Your task to perform on an android device: install app "Facebook" Image 0: 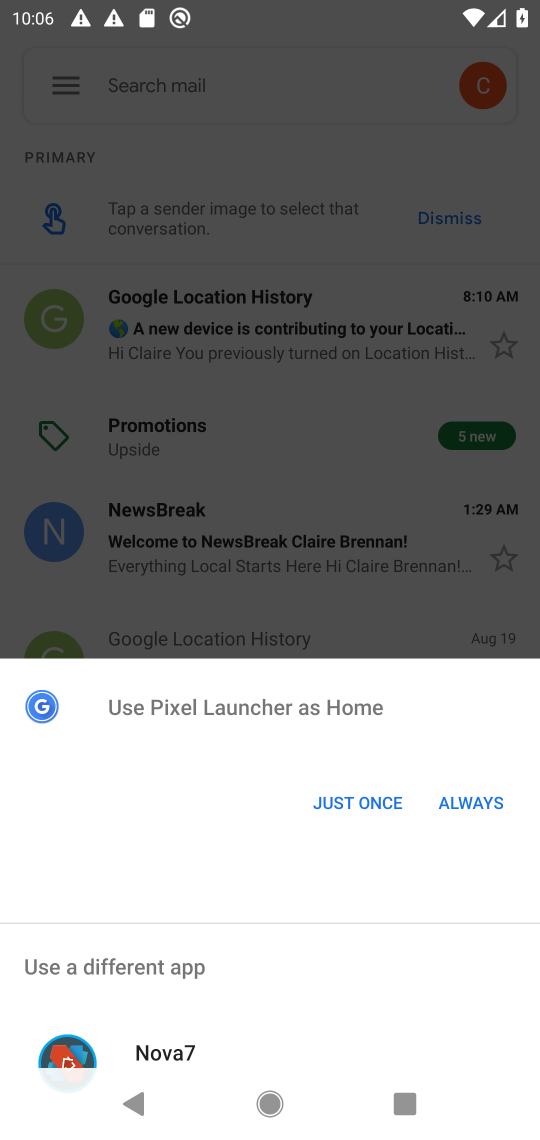
Step 0: click (329, 807)
Your task to perform on an android device: install app "Facebook" Image 1: 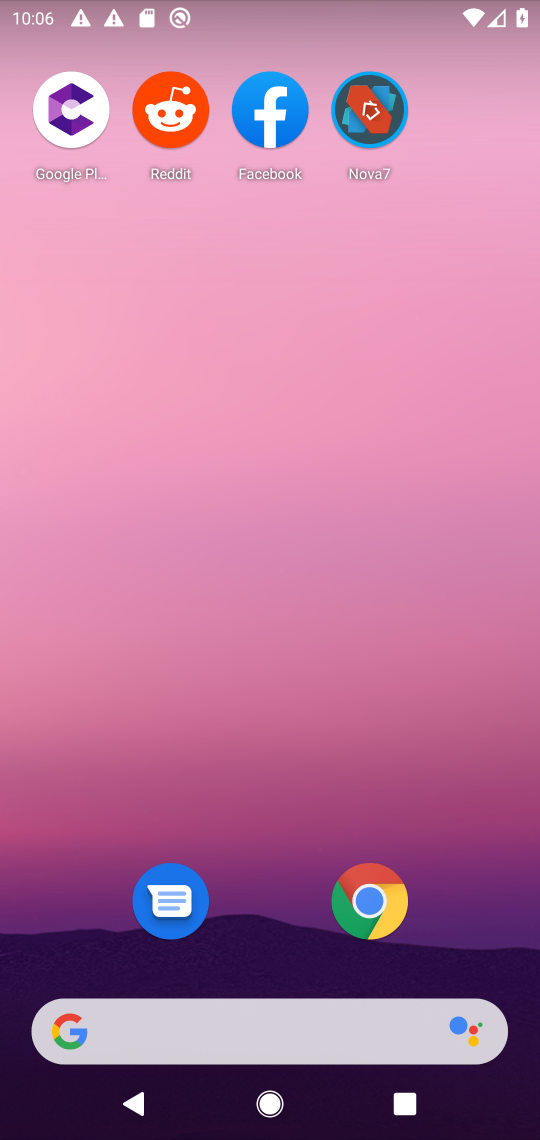
Step 1: drag from (304, 1017) to (427, 63)
Your task to perform on an android device: install app "Facebook" Image 2: 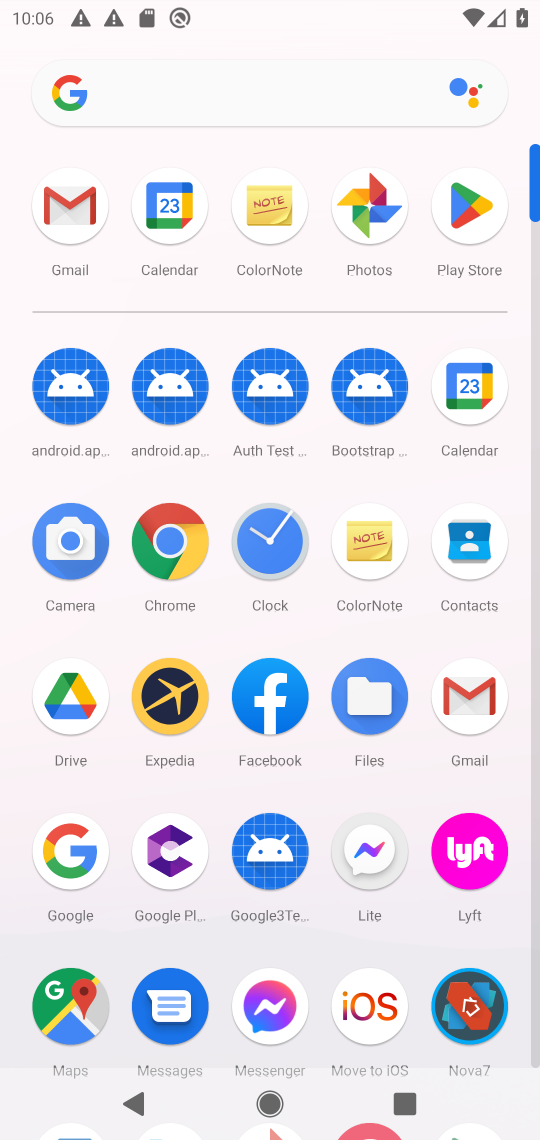
Step 2: click (476, 206)
Your task to perform on an android device: install app "Facebook" Image 3: 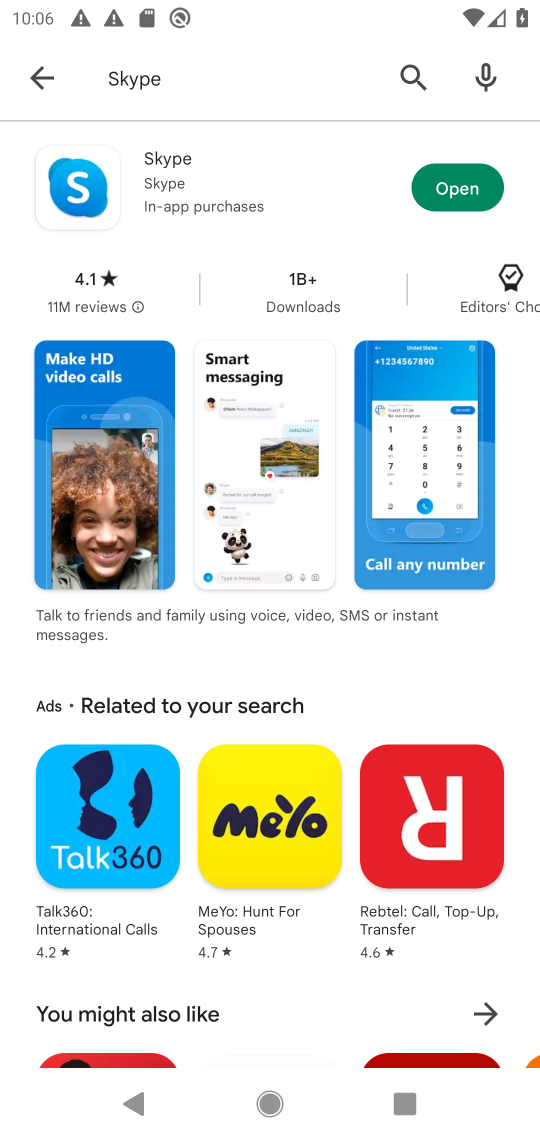
Step 3: press back button
Your task to perform on an android device: install app "Facebook" Image 4: 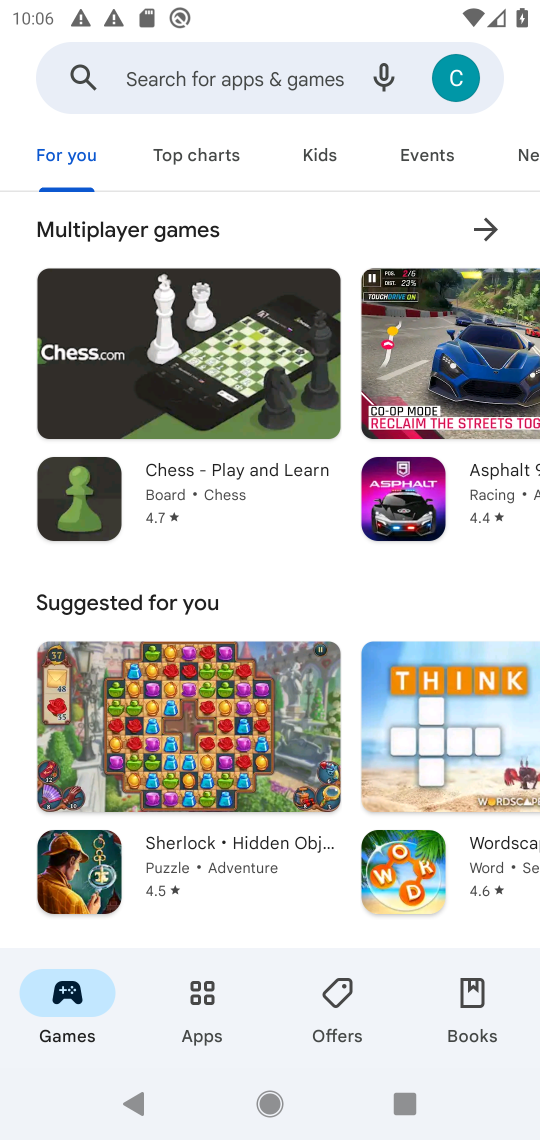
Step 4: click (247, 78)
Your task to perform on an android device: install app "Facebook" Image 5: 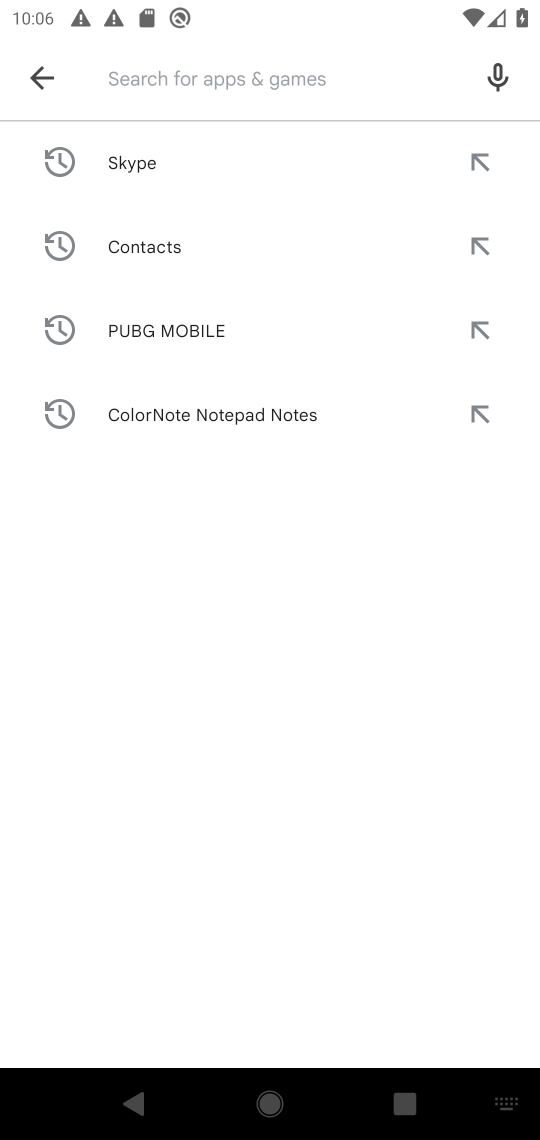
Step 5: type "Facebook"
Your task to perform on an android device: install app "Facebook" Image 6: 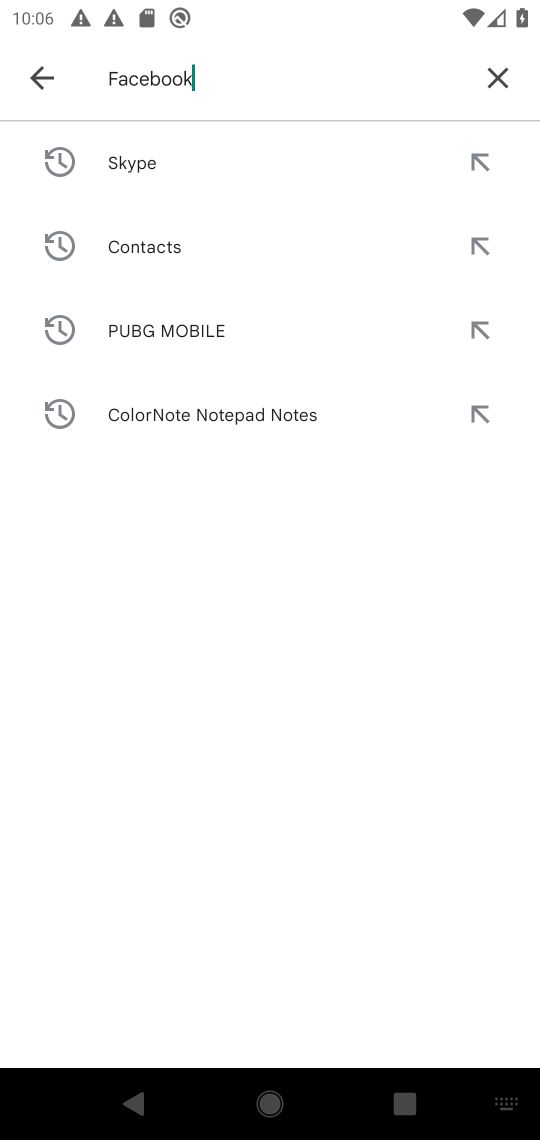
Step 6: press enter
Your task to perform on an android device: install app "Facebook" Image 7: 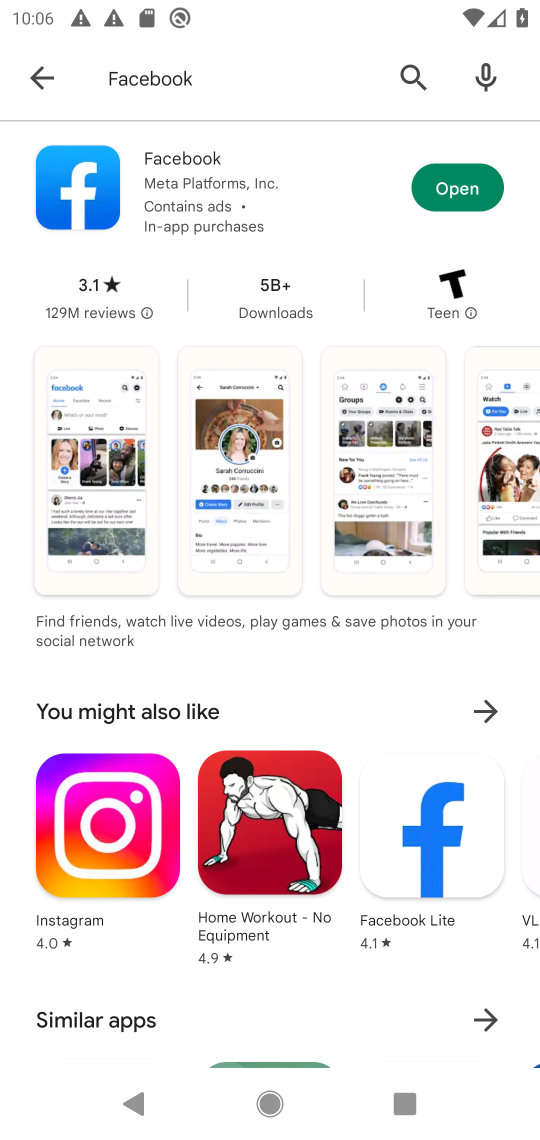
Step 7: click (97, 188)
Your task to perform on an android device: install app "Facebook" Image 8: 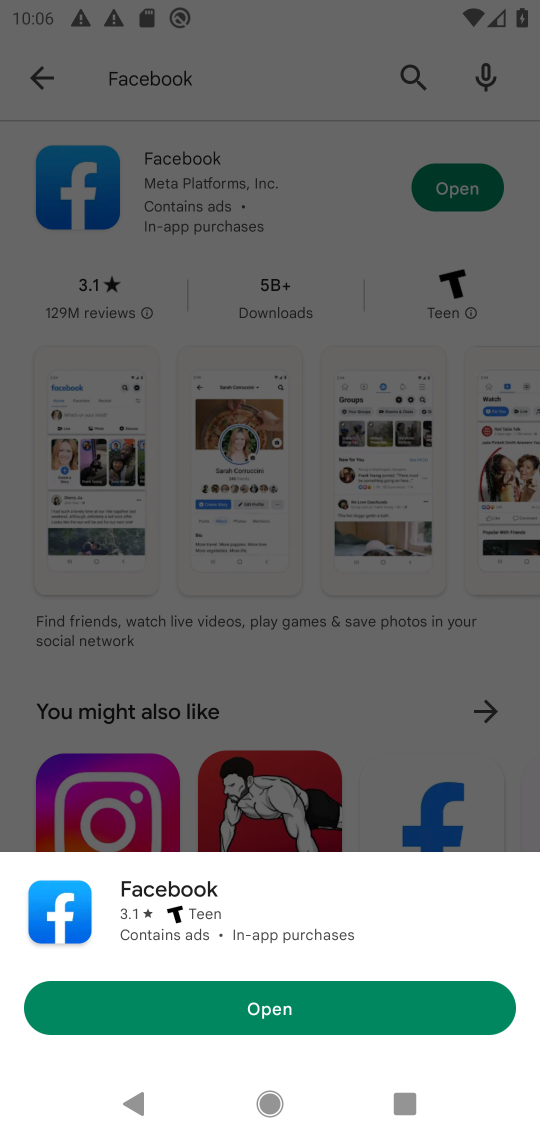
Step 8: click (288, 989)
Your task to perform on an android device: install app "Facebook" Image 9: 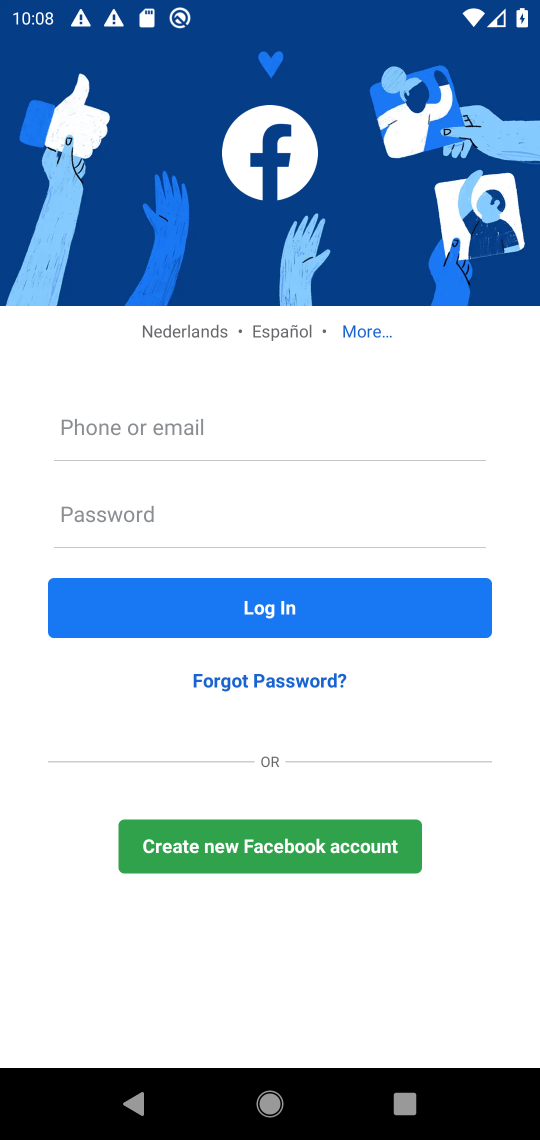
Step 9: task complete